Your task to perform on an android device: Search for pizza restaurants on Maps Image 0: 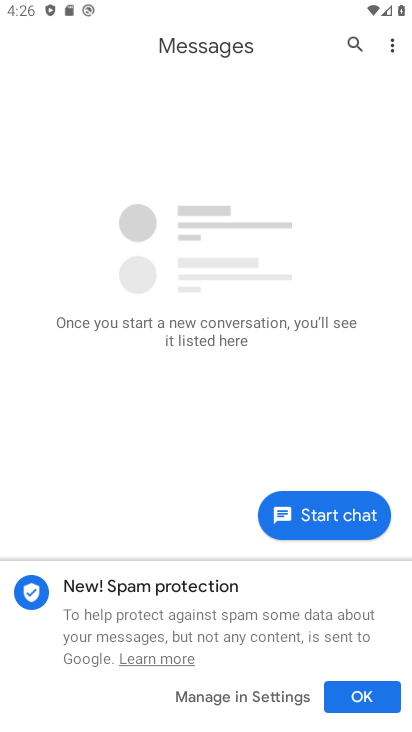
Step 0: press home button
Your task to perform on an android device: Search for pizza restaurants on Maps Image 1: 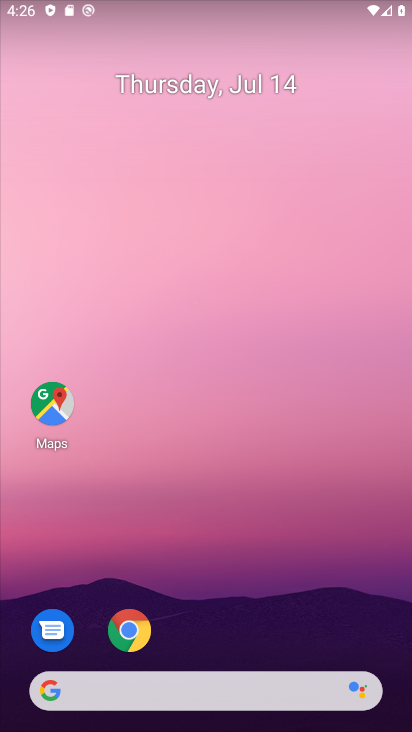
Step 1: click (49, 371)
Your task to perform on an android device: Search for pizza restaurants on Maps Image 2: 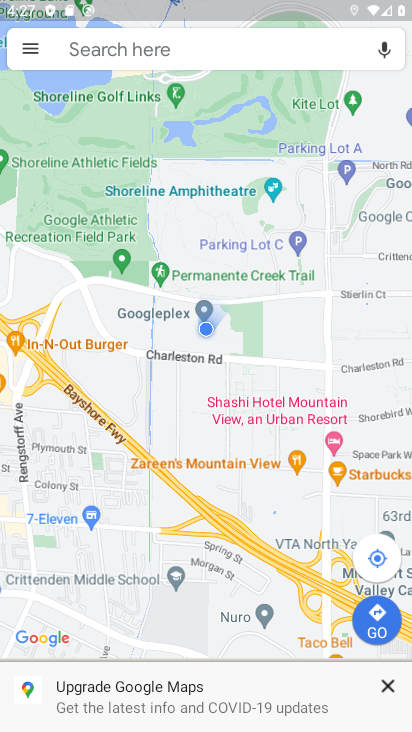
Step 2: click (140, 33)
Your task to perform on an android device: Search for pizza restaurants on Maps Image 3: 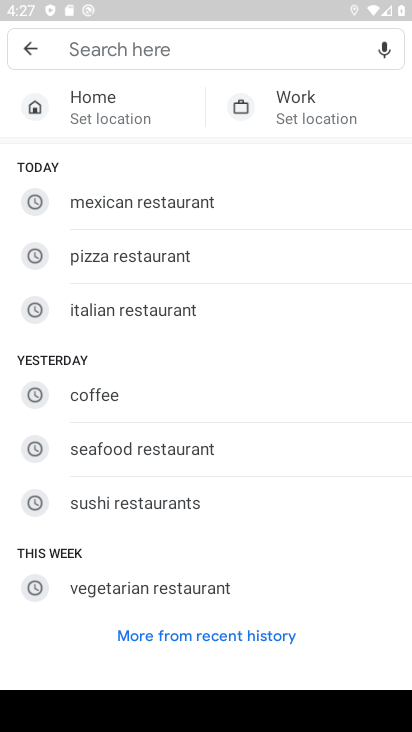
Step 3: click (143, 272)
Your task to perform on an android device: Search for pizza restaurants on Maps Image 4: 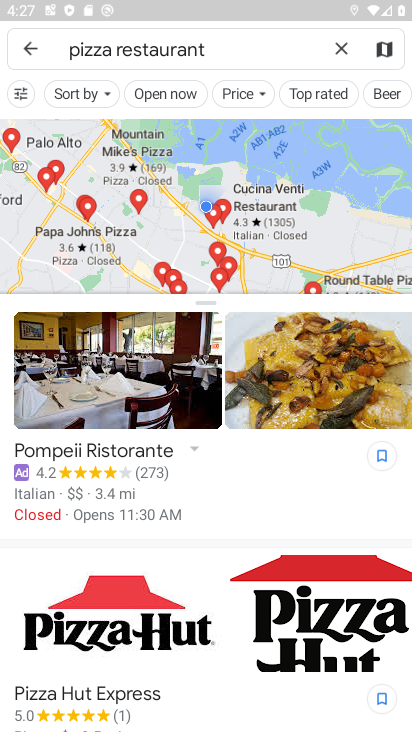
Step 4: task complete